Your task to perform on an android device: open app "Duolingo: language lessons" (install if not already installed) Image 0: 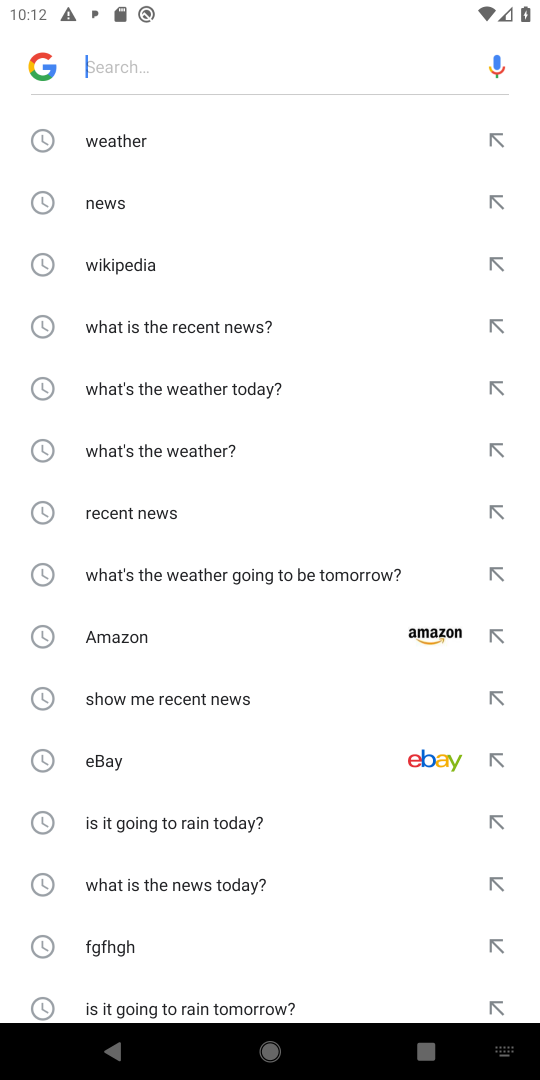
Step 0: press home button
Your task to perform on an android device: open app "Duolingo: language lessons" (install if not already installed) Image 1: 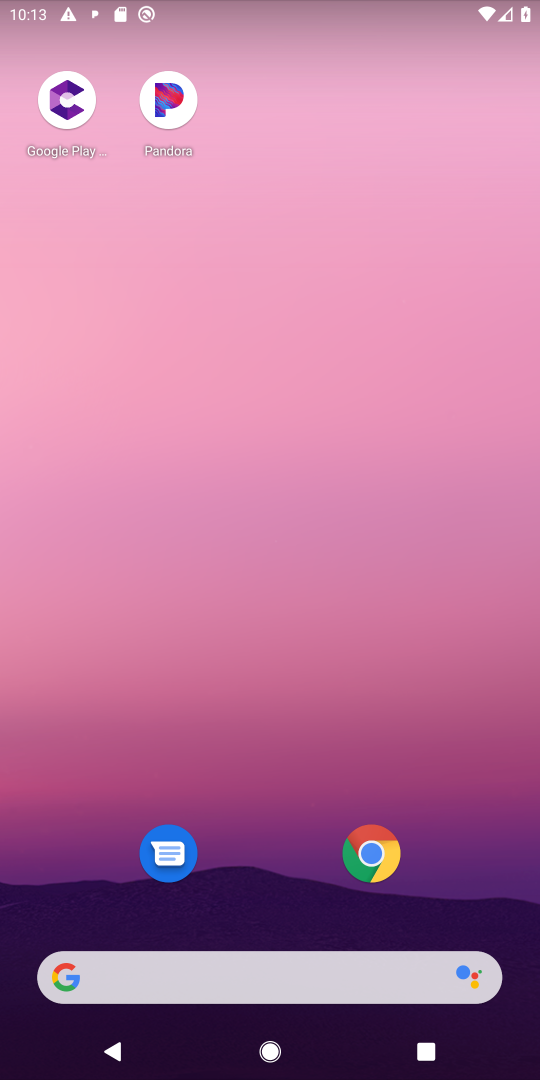
Step 1: drag from (148, 514) to (264, 0)
Your task to perform on an android device: open app "Duolingo: language lessons" (install if not already installed) Image 2: 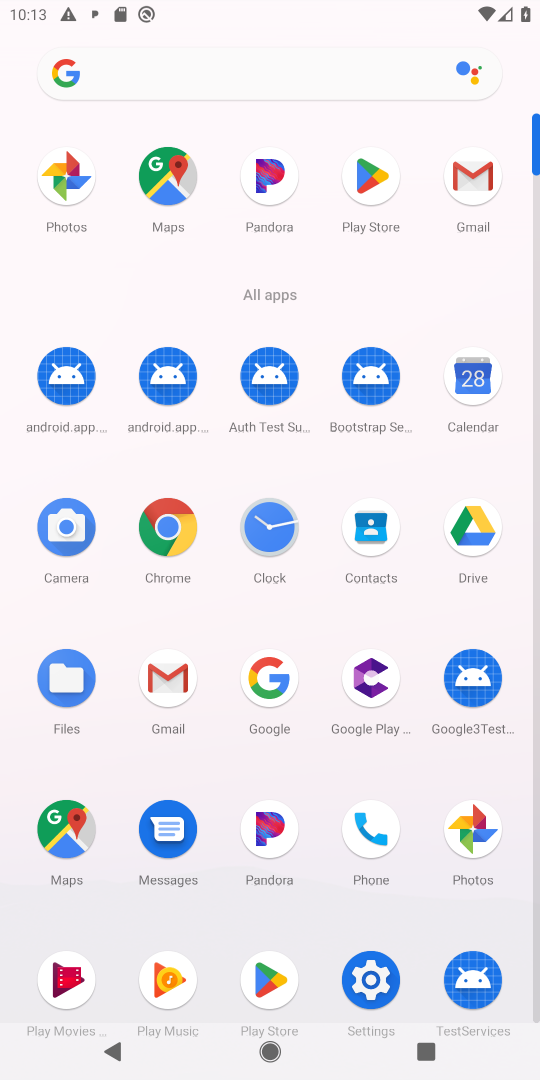
Step 2: click (374, 179)
Your task to perform on an android device: open app "Duolingo: language lessons" (install if not already installed) Image 3: 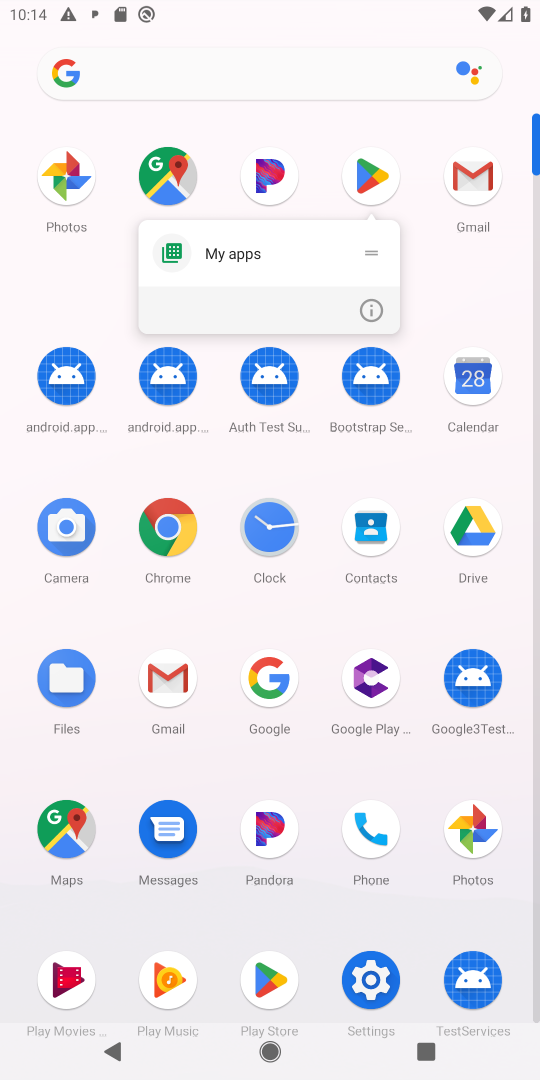
Step 3: click (372, 173)
Your task to perform on an android device: open app "Duolingo: language lessons" (install if not already installed) Image 4: 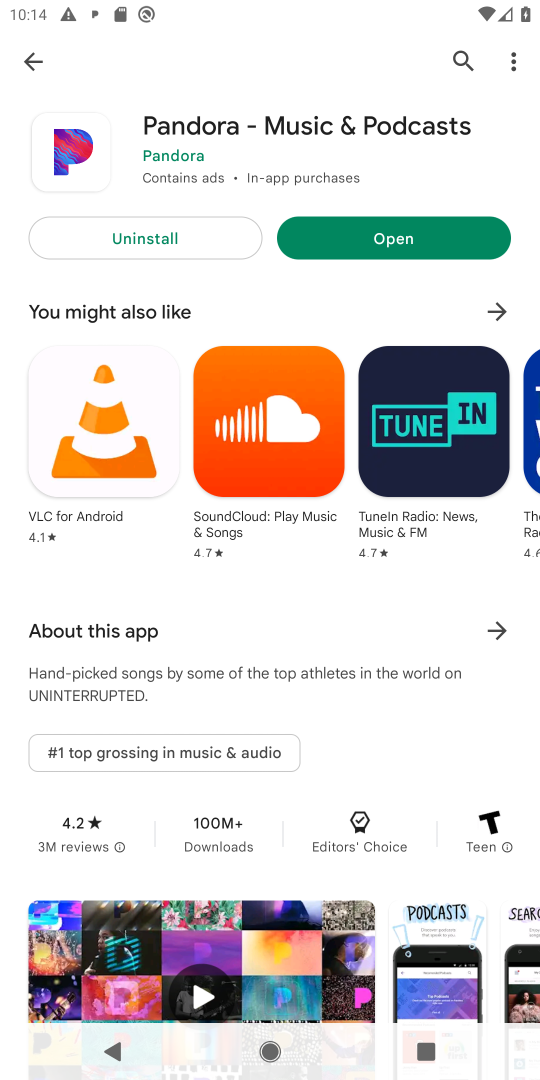
Step 4: click (456, 59)
Your task to perform on an android device: open app "Duolingo: language lessons" (install if not already installed) Image 5: 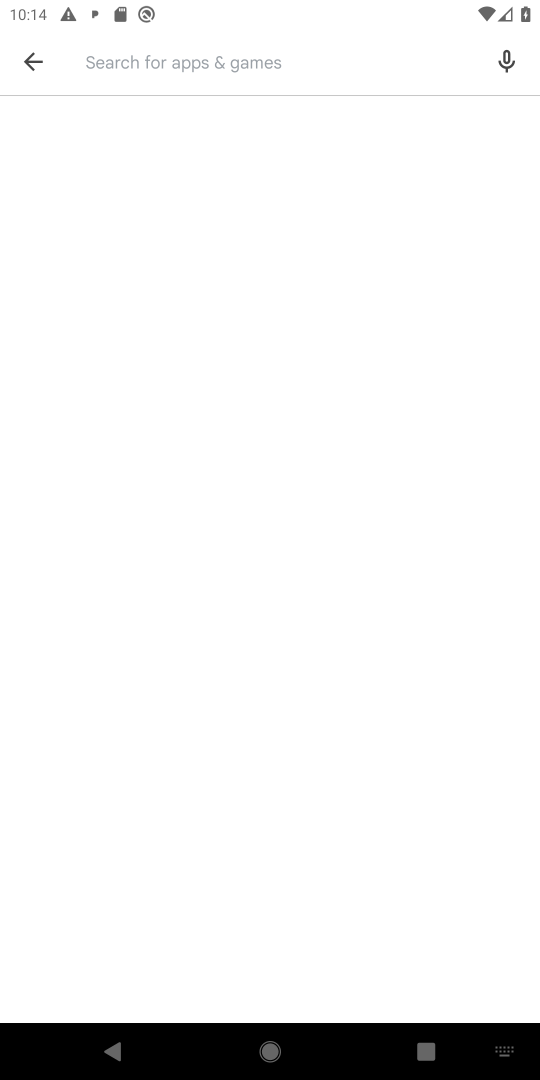
Step 5: type "Duolingo: language lessons"
Your task to perform on an android device: open app "Duolingo: language lessons" (install if not already installed) Image 6: 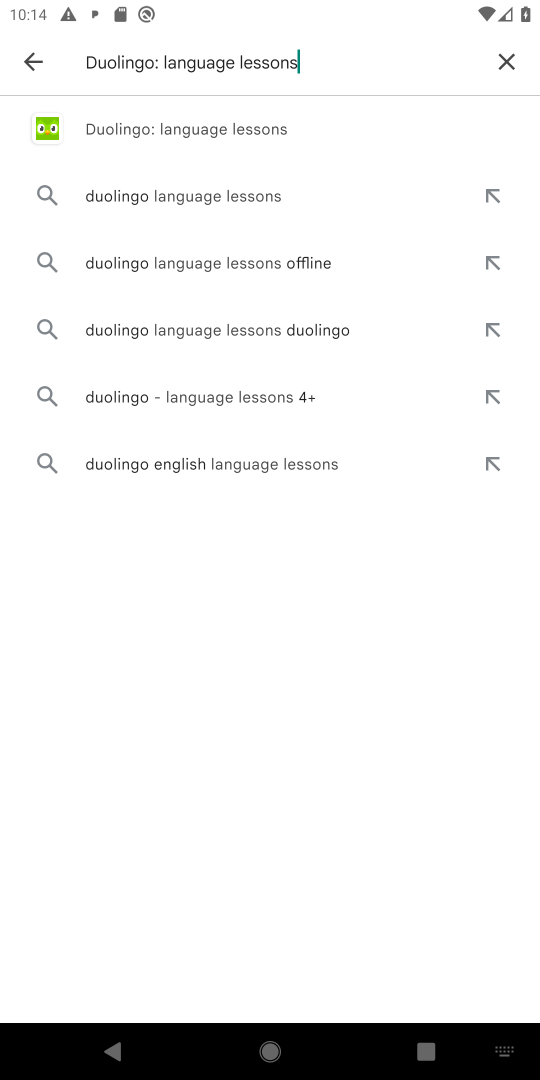
Step 6: click (284, 121)
Your task to perform on an android device: open app "Duolingo: language lessons" (install if not already installed) Image 7: 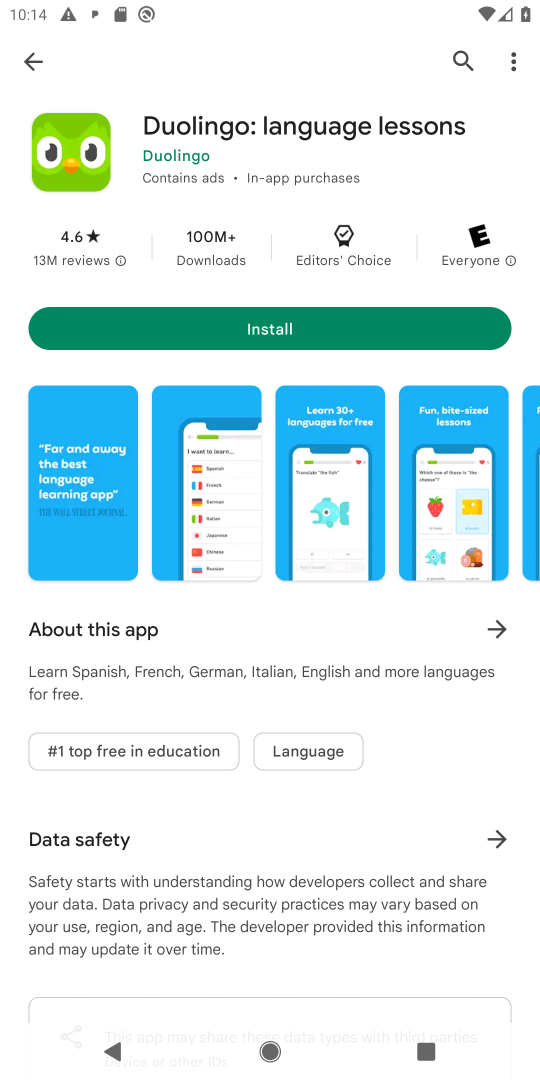
Step 7: click (330, 331)
Your task to perform on an android device: open app "Duolingo: language lessons" (install if not already installed) Image 8: 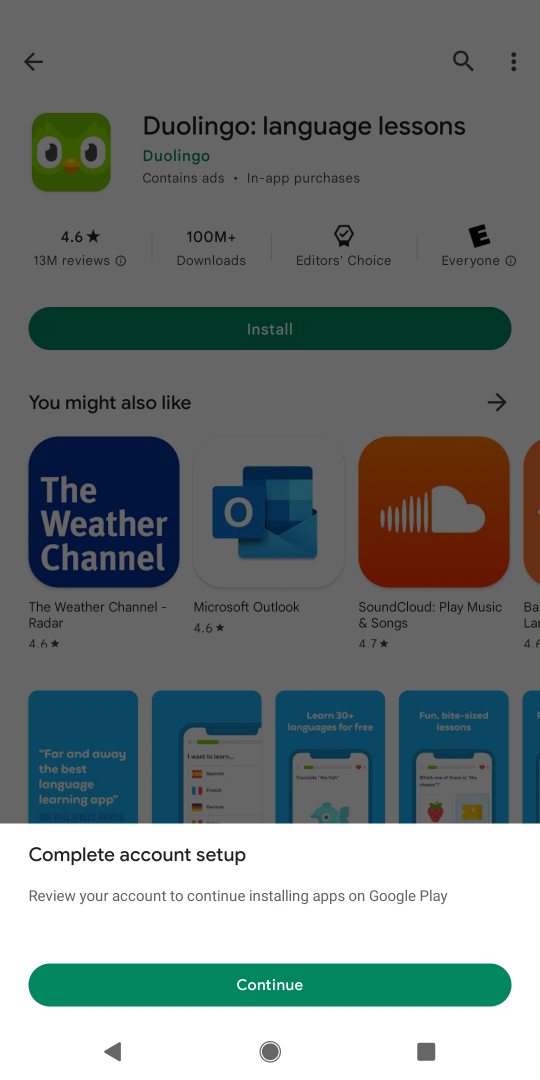
Step 8: click (436, 982)
Your task to perform on an android device: open app "Duolingo: language lessons" (install if not already installed) Image 9: 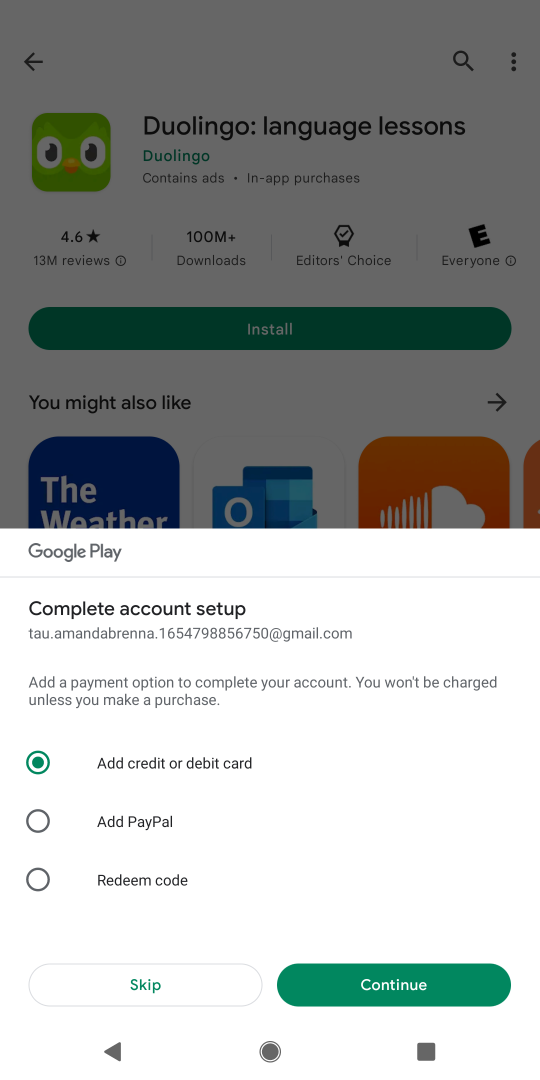
Step 9: click (164, 984)
Your task to perform on an android device: open app "Duolingo: language lessons" (install if not already installed) Image 10: 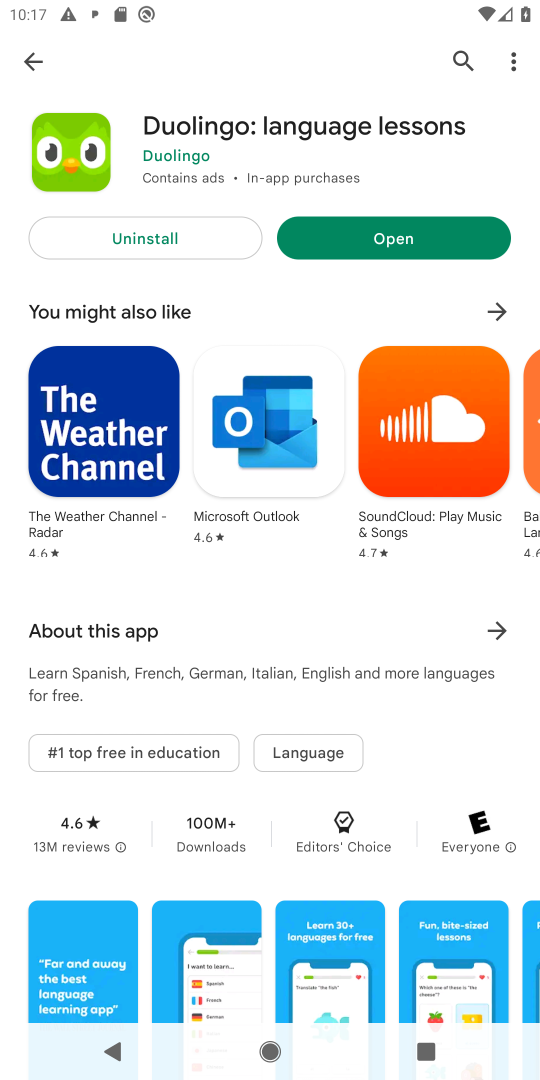
Step 10: click (375, 236)
Your task to perform on an android device: open app "Duolingo: language lessons" (install if not already installed) Image 11: 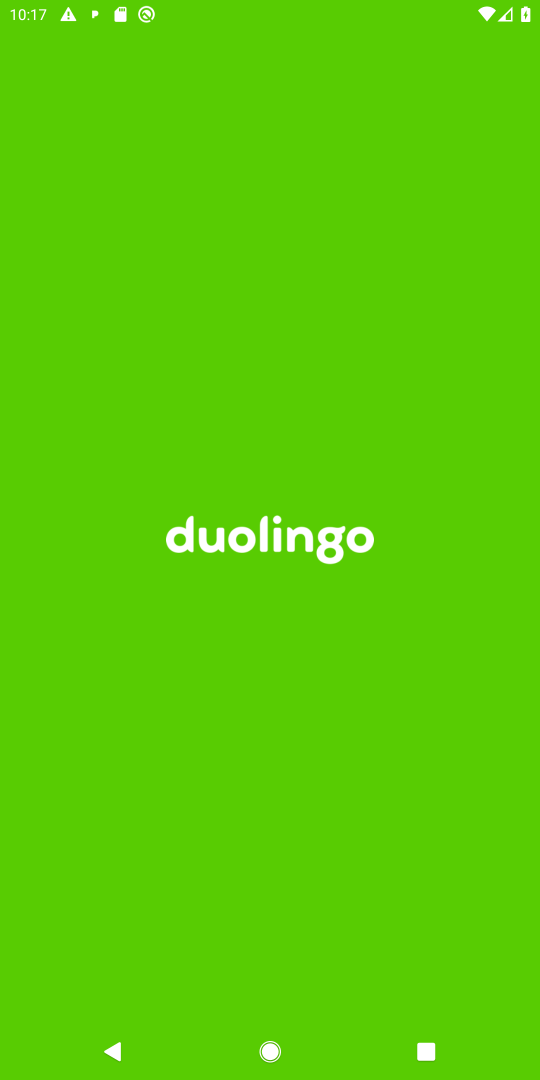
Step 11: task complete